Your task to perform on an android device: Show me popular games on the Play Store Image 0: 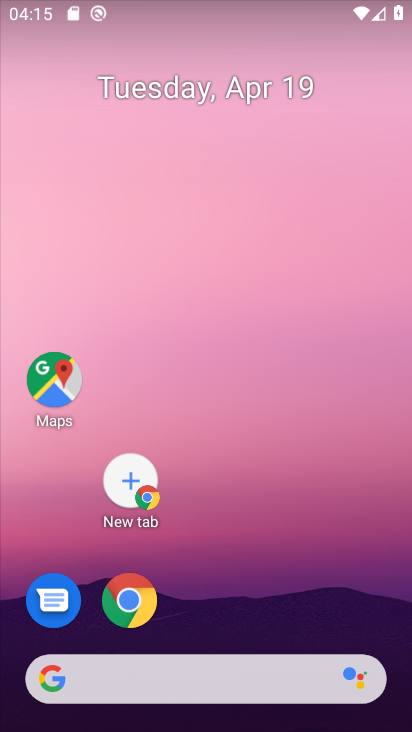
Step 0: drag from (223, 606) to (227, 21)
Your task to perform on an android device: Show me popular games on the Play Store Image 1: 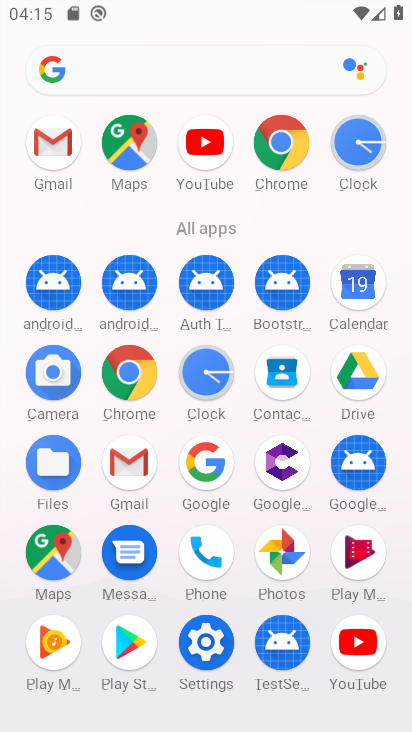
Step 1: click (138, 651)
Your task to perform on an android device: Show me popular games on the Play Store Image 2: 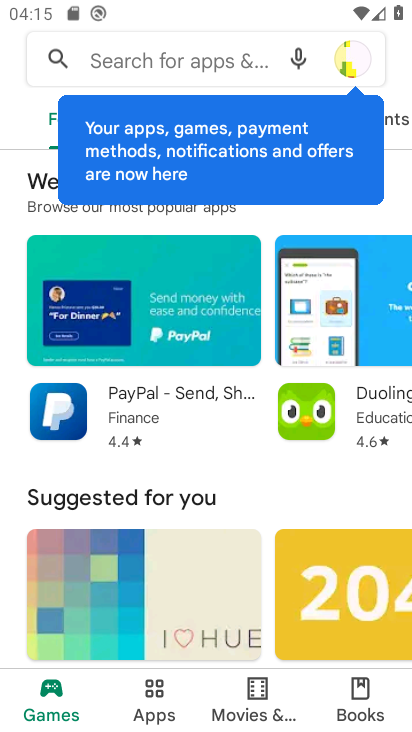
Step 2: click (155, 680)
Your task to perform on an android device: Show me popular games on the Play Store Image 3: 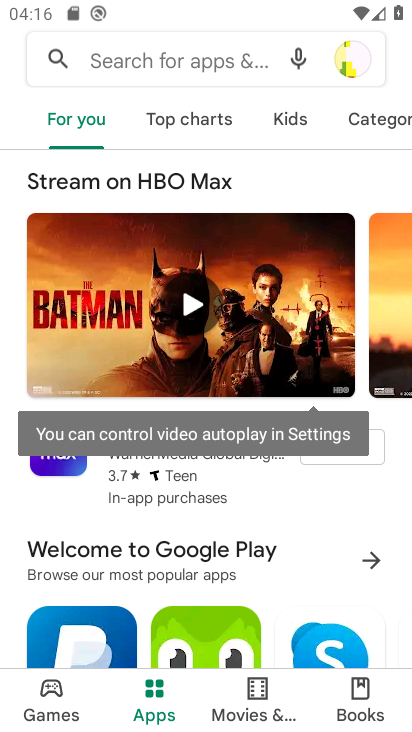
Step 3: drag from (364, 123) to (53, 106)
Your task to perform on an android device: Show me popular games on the Play Store Image 4: 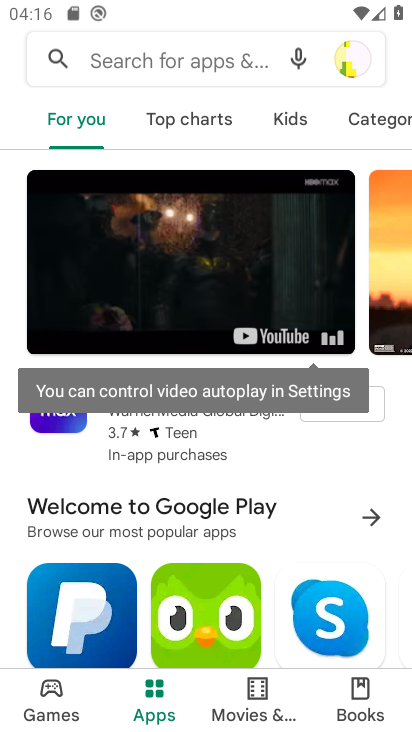
Step 4: drag from (355, 142) to (25, 134)
Your task to perform on an android device: Show me popular games on the Play Store Image 5: 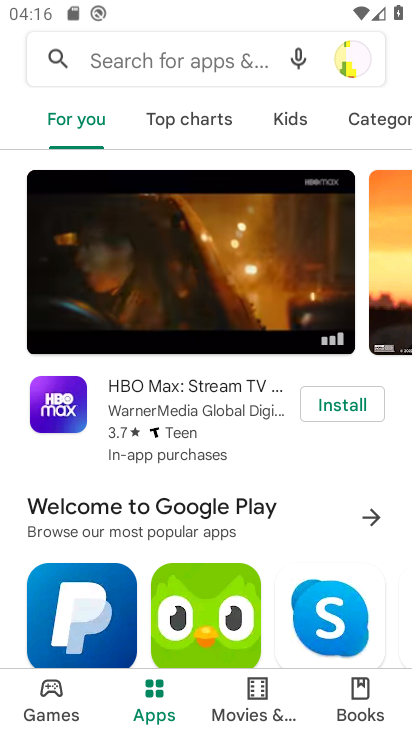
Step 5: drag from (359, 147) to (10, 146)
Your task to perform on an android device: Show me popular games on the Play Store Image 6: 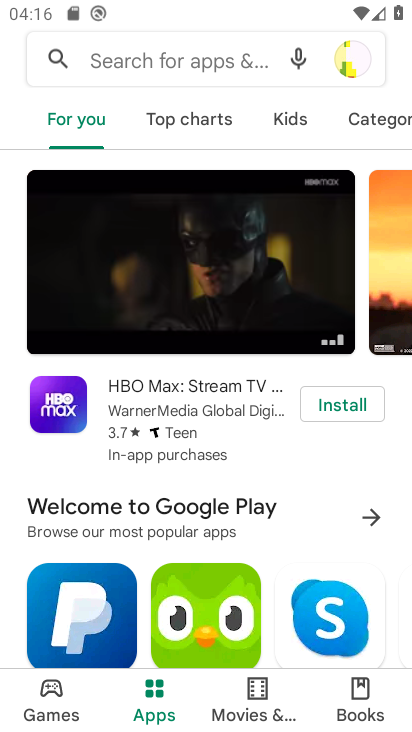
Step 6: drag from (392, 147) to (76, 170)
Your task to perform on an android device: Show me popular games on the Play Store Image 7: 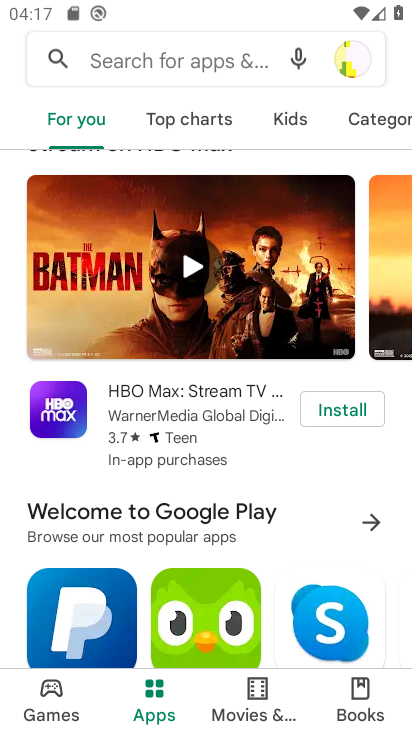
Step 7: drag from (365, 148) to (51, 225)
Your task to perform on an android device: Show me popular games on the Play Store Image 8: 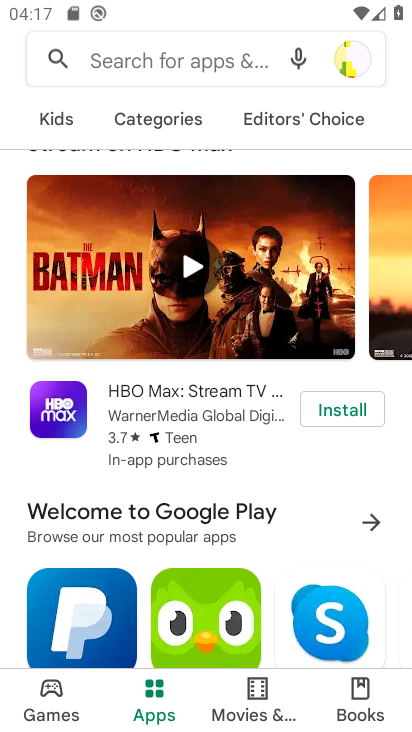
Step 8: drag from (396, 132) to (140, 99)
Your task to perform on an android device: Show me popular games on the Play Store Image 9: 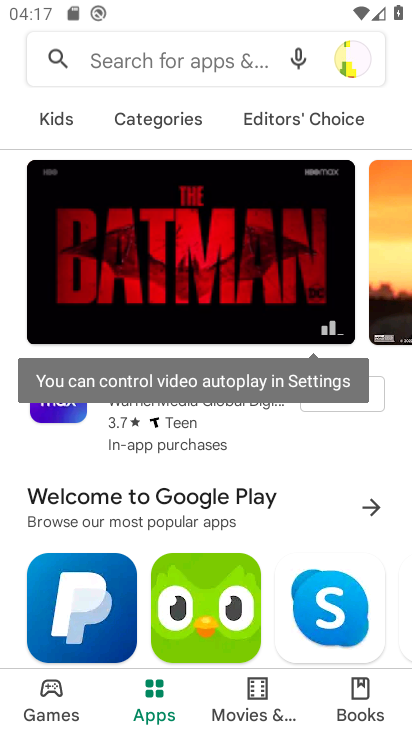
Step 9: click (153, 122)
Your task to perform on an android device: Show me popular games on the Play Store Image 10: 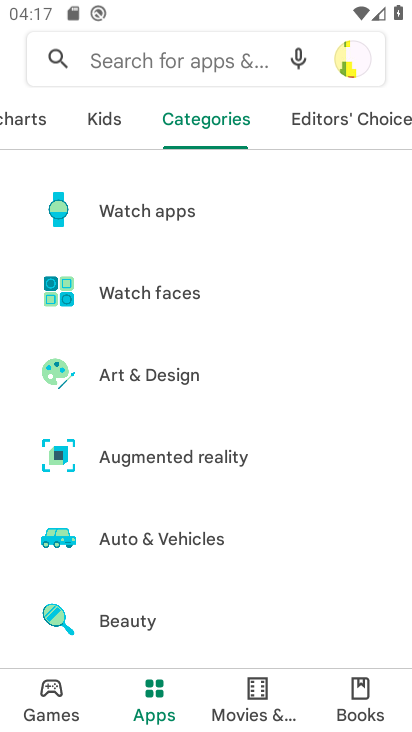
Step 10: drag from (131, 635) to (221, 161)
Your task to perform on an android device: Show me popular games on the Play Store Image 11: 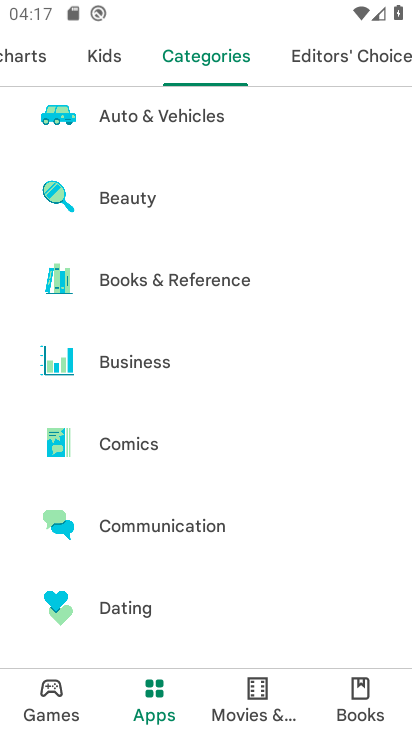
Step 11: drag from (111, 614) to (170, 171)
Your task to perform on an android device: Show me popular games on the Play Store Image 12: 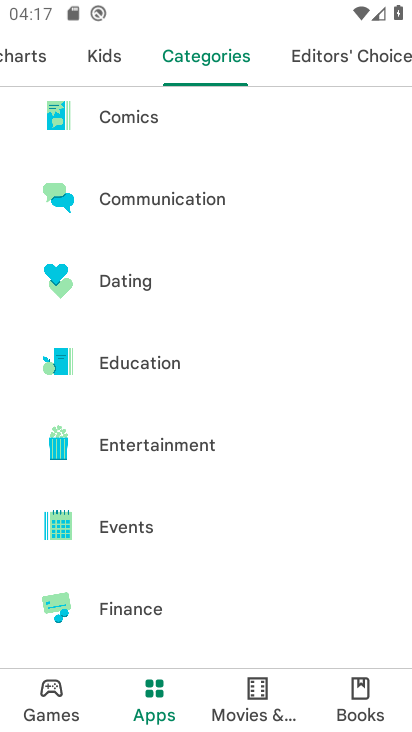
Step 12: drag from (153, 587) to (211, 88)
Your task to perform on an android device: Show me popular games on the Play Store Image 13: 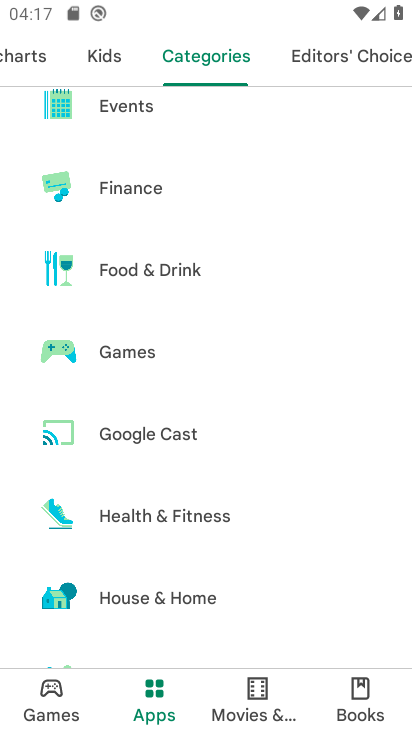
Step 13: drag from (220, 356) to (191, 695)
Your task to perform on an android device: Show me popular games on the Play Store Image 14: 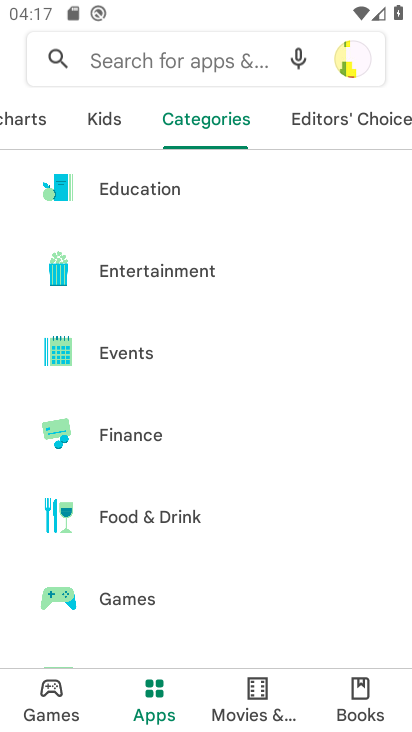
Step 14: drag from (201, 204) to (104, 690)
Your task to perform on an android device: Show me popular games on the Play Store Image 15: 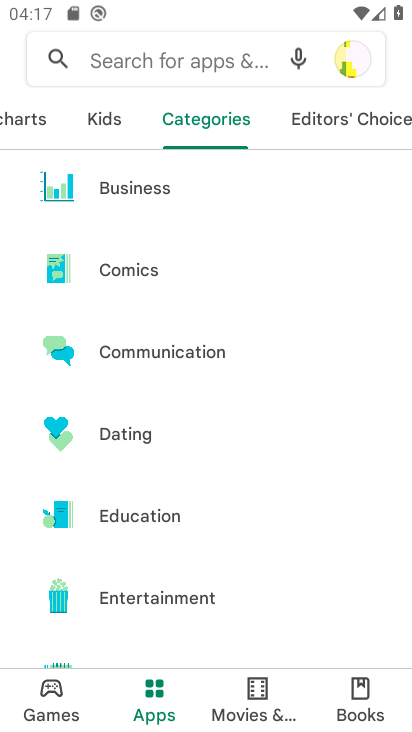
Step 15: drag from (125, 583) to (184, 118)
Your task to perform on an android device: Show me popular games on the Play Store Image 16: 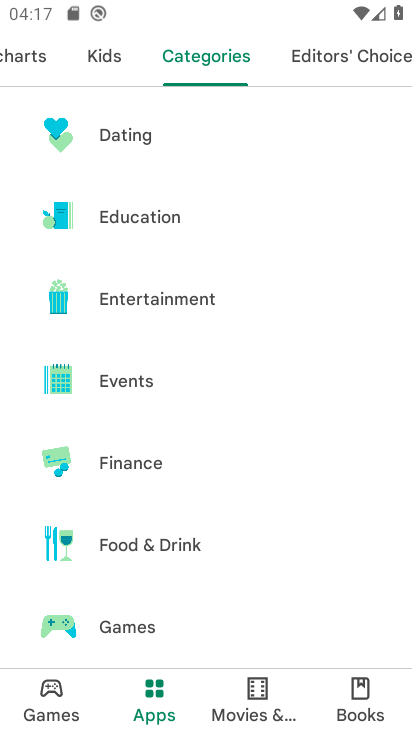
Step 16: drag from (152, 588) to (164, 178)
Your task to perform on an android device: Show me popular games on the Play Store Image 17: 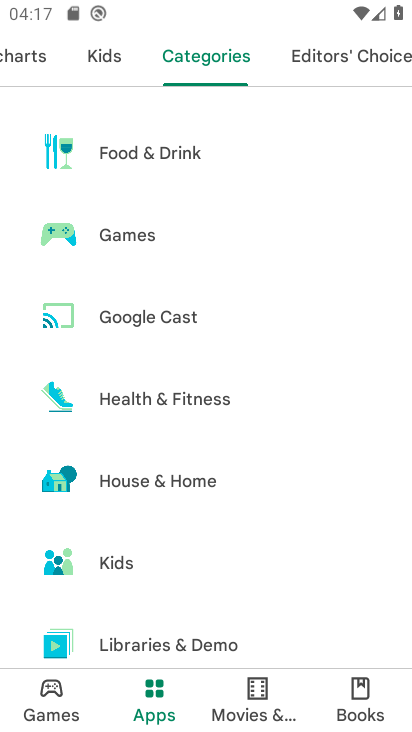
Step 17: drag from (185, 579) to (240, 57)
Your task to perform on an android device: Show me popular games on the Play Store Image 18: 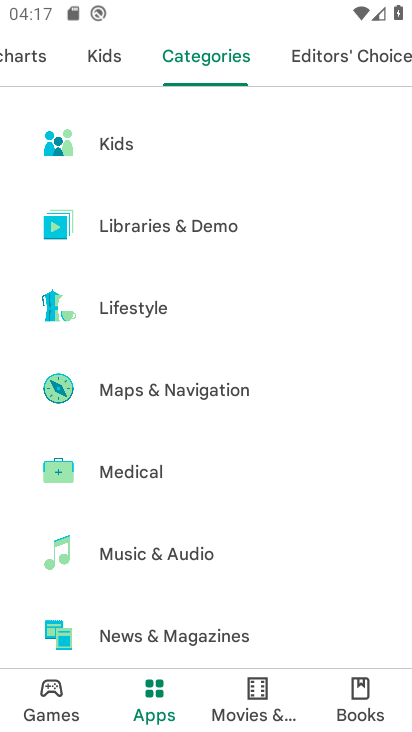
Step 18: drag from (145, 498) to (99, 43)
Your task to perform on an android device: Show me popular games on the Play Store Image 19: 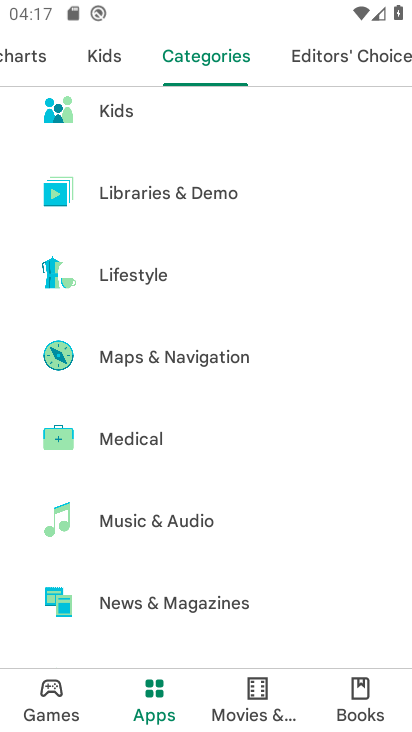
Step 19: drag from (81, 548) to (191, 53)
Your task to perform on an android device: Show me popular games on the Play Store Image 20: 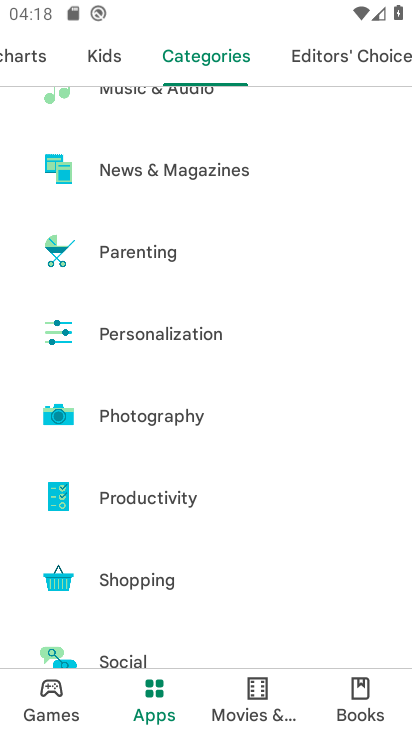
Step 20: drag from (170, 557) to (221, 222)
Your task to perform on an android device: Show me popular games on the Play Store Image 21: 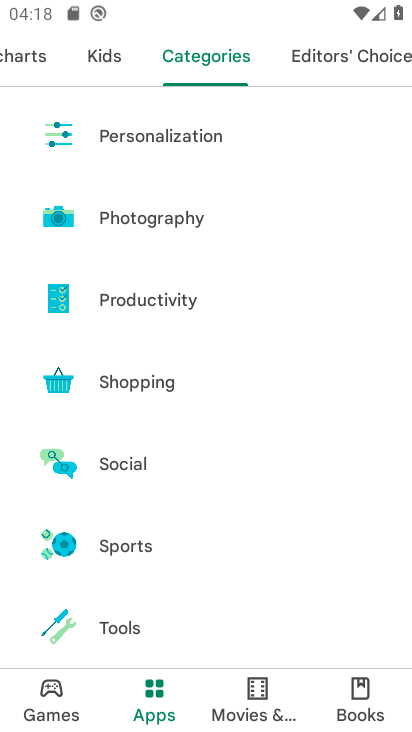
Step 21: drag from (322, 60) to (28, 81)
Your task to perform on an android device: Show me popular games on the Play Store Image 22: 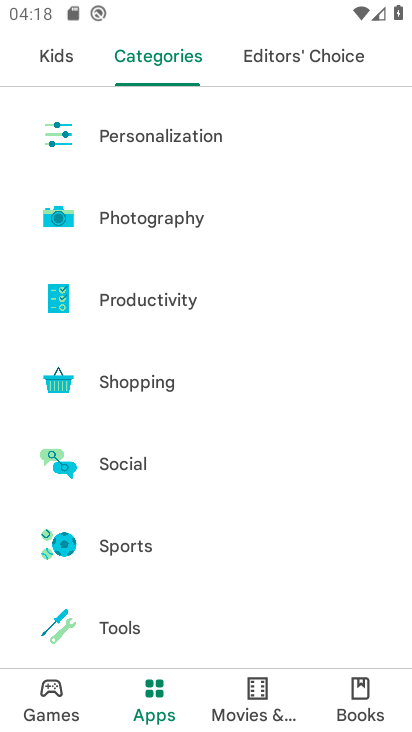
Step 22: click (49, 713)
Your task to perform on an android device: Show me popular games on the Play Store Image 23: 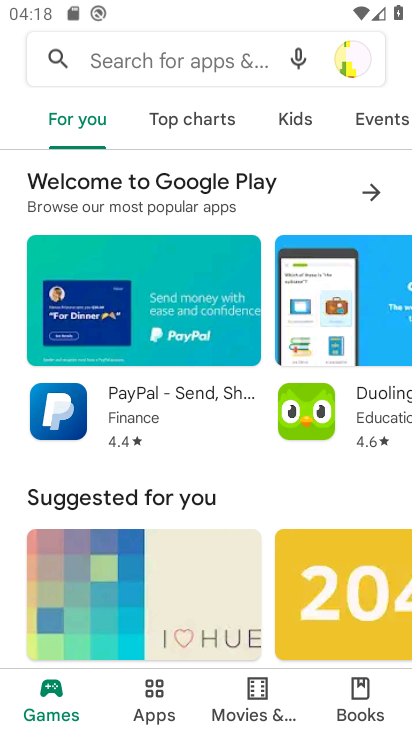
Step 23: click (213, 135)
Your task to perform on an android device: Show me popular games on the Play Store Image 24: 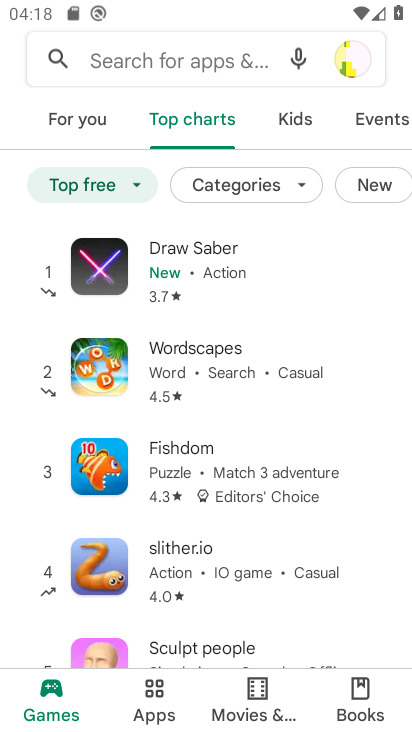
Step 24: task complete